Your task to perform on an android device: Open calendar and show me the second week of next month Image 0: 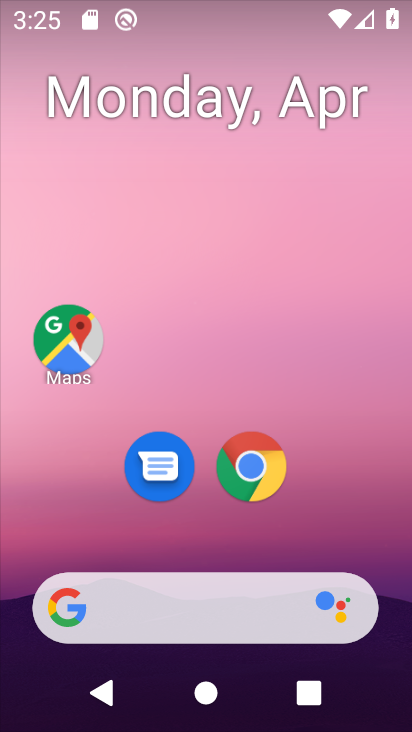
Step 0: drag from (290, 525) to (283, 157)
Your task to perform on an android device: Open calendar and show me the second week of next month Image 1: 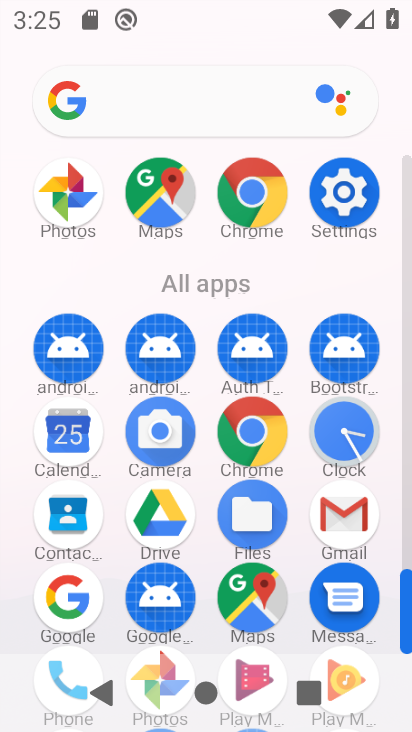
Step 1: click (65, 445)
Your task to perform on an android device: Open calendar and show me the second week of next month Image 2: 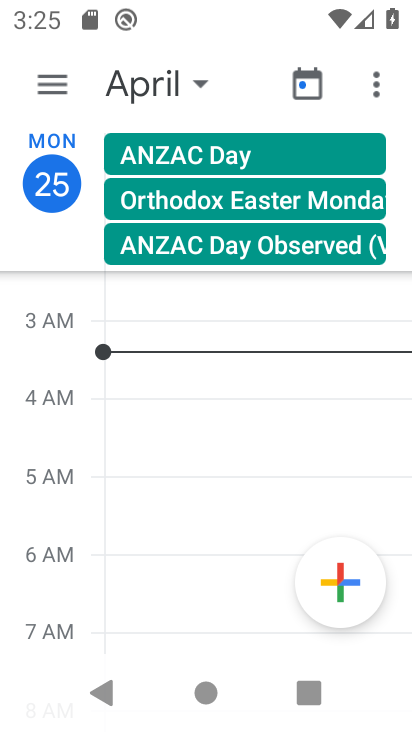
Step 2: click (42, 78)
Your task to perform on an android device: Open calendar and show me the second week of next month Image 3: 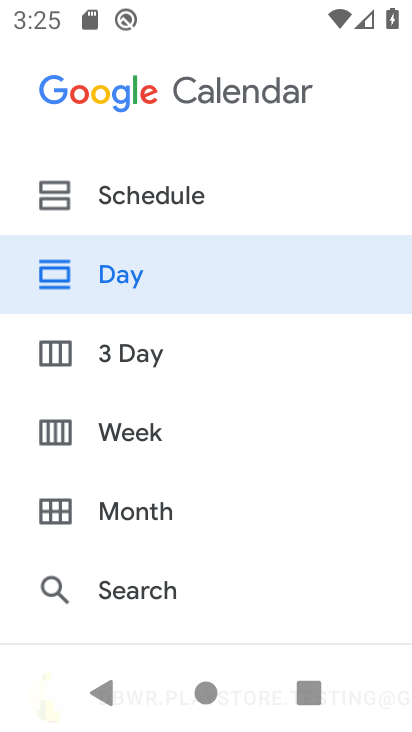
Step 3: click (140, 440)
Your task to perform on an android device: Open calendar and show me the second week of next month Image 4: 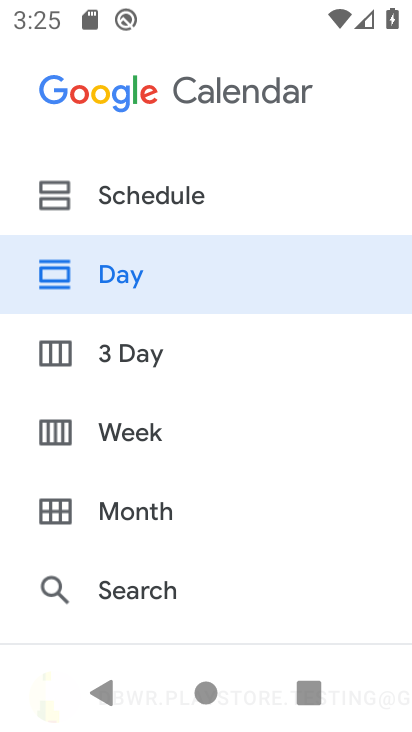
Step 4: click (141, 441)
Your task to perform on an android device: Open calendar and show me the second week of next month Image 5: 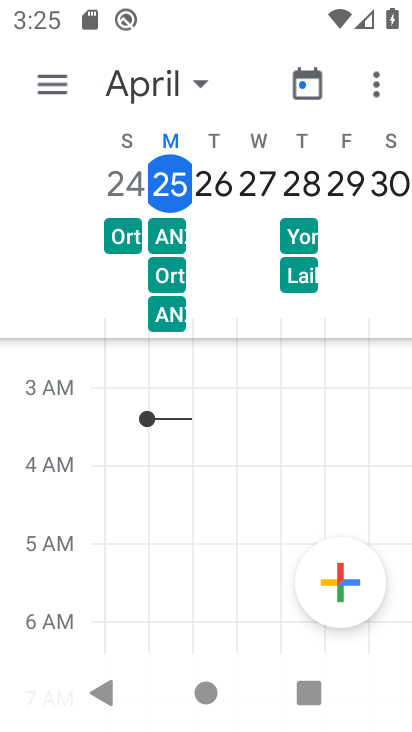
Step 5: click (186, 87)
Your task to perform on an android device: Open calendar and show me the second week of next month Image 6: 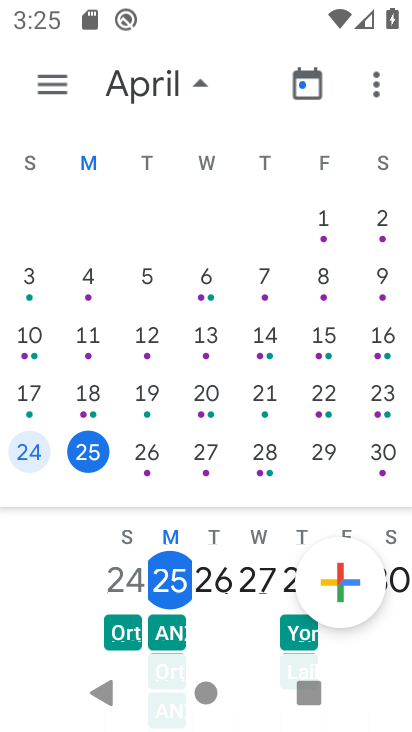
Step 6: drag from (317, 355) to (8, 380)
Your task to perform on an android device: Open calendar and show me the second week of next month Image 7: 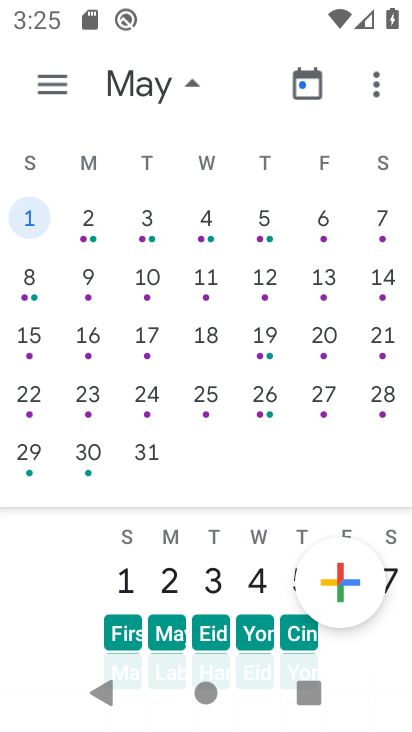
Step 7: click (30, 280)
Your task to perform on an android device: Open calendar and show me the second week of next month Image 8: 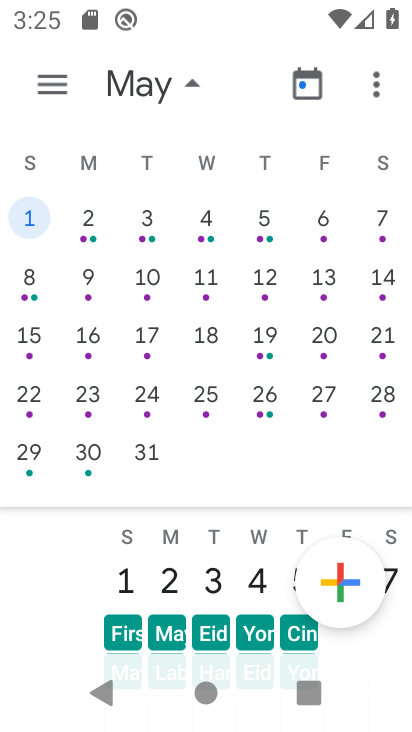
Step 8: click (24, 292)
Your task to perform on an android device: Open calendar and show me the second week of next month Image 9: 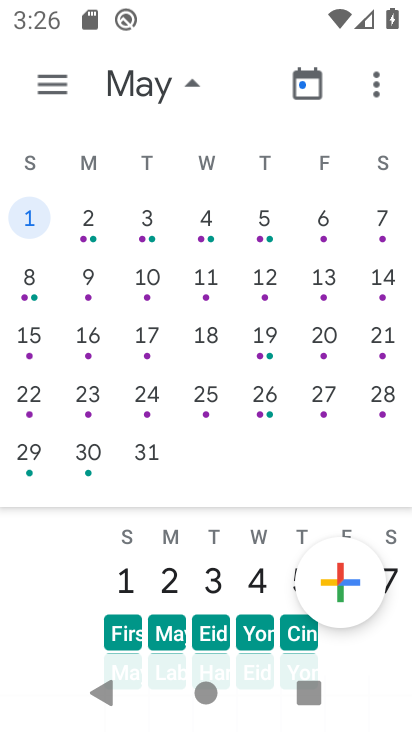
Step 9: click (37, 284)
Your task to perform on an android device: Open calendar and show me the second week of next month Image 10: 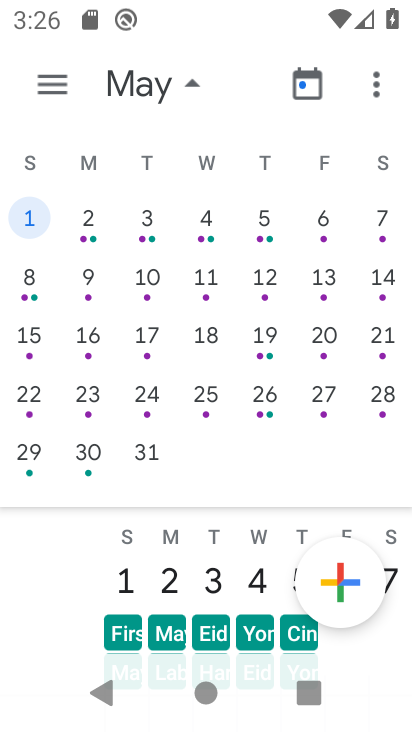
Step 10: click (32, 291)
Your task to perform on an android device: Open calendar and show me the second week of next month Image 11: 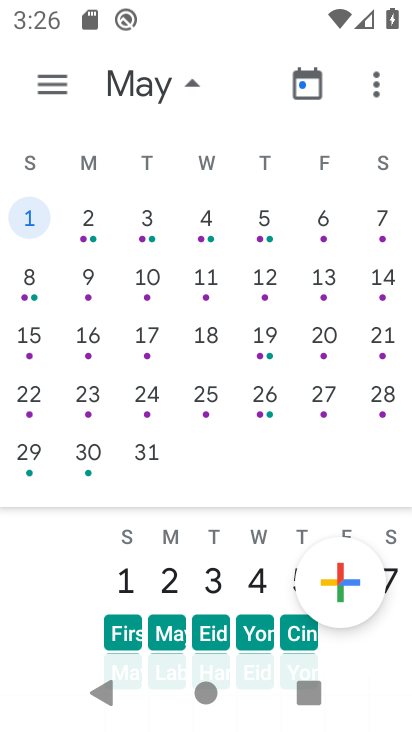
Step 11: click (34, 289)
Your task to perform on an android device: Open calendar and show me the second week of next month Image 12: 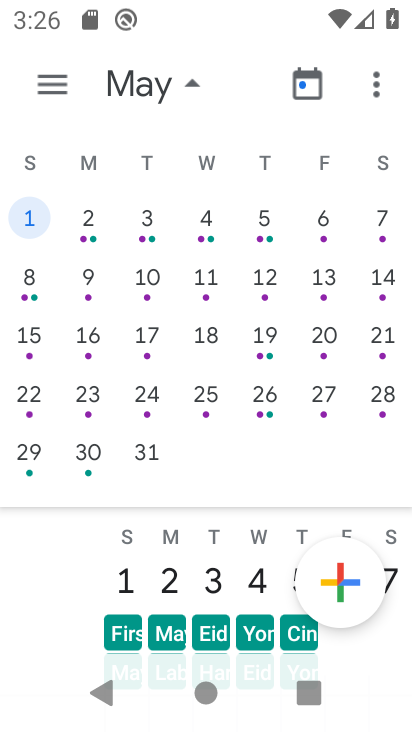
Step 12: click (28, 287)
Your task to perform on an android device: Open calendar and show me the second week of next month Image 13: 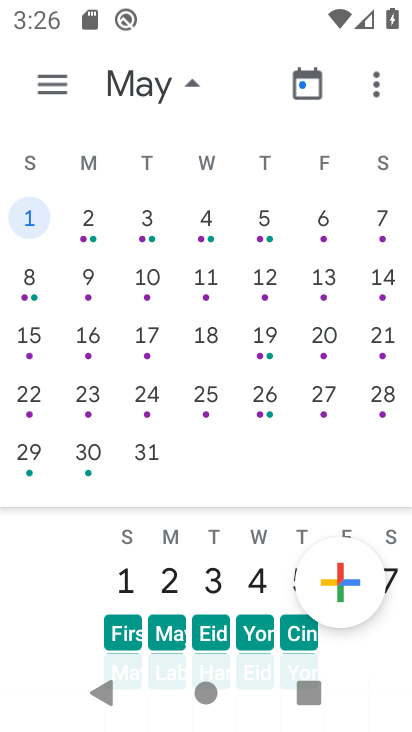
Step 13: click (38, 278)
Your task to perform on an android device: Open calendar and show me the second week of next month Image 14: 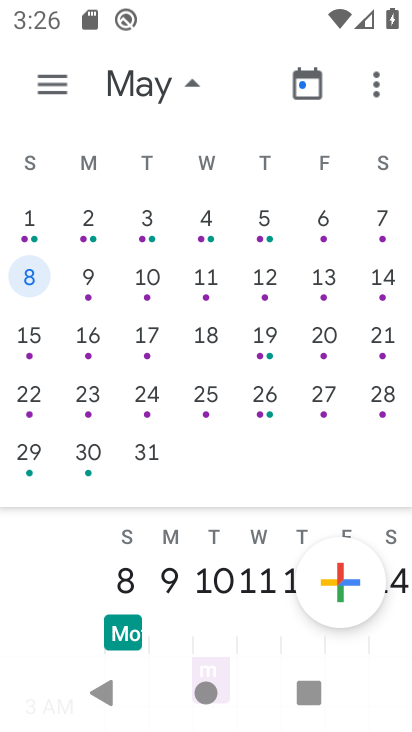
Step 14: click (147, 108)
Your task to perform on an android device: Open calendar and show me the second week of next month Image 15: 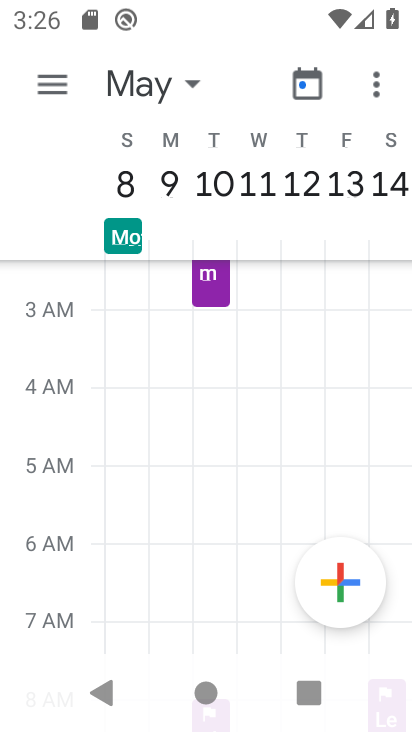
Step 15: task complete